Your task to perform on an android device: Open privacy settings Image 0: 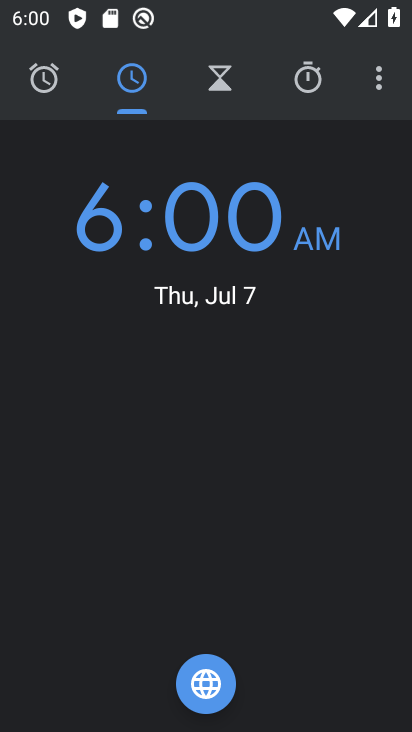
Step 0: press home button
Your task to perform on an android device: Open privacy settings Image 1: 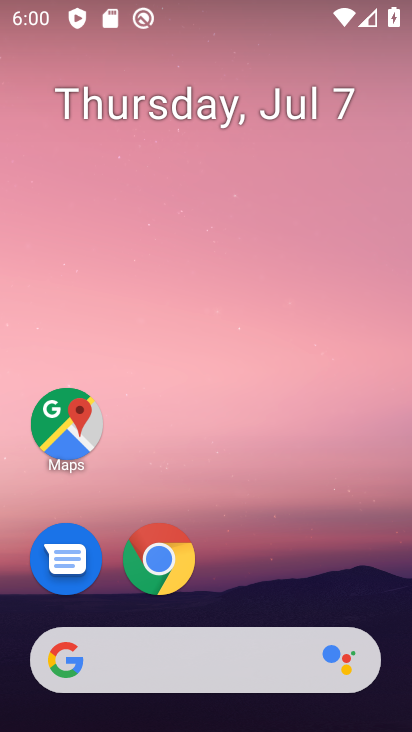
Step 1: drag from (171, 570) to (215, 210)
Your task to perform on an android device: Open privacy settings Image 2: 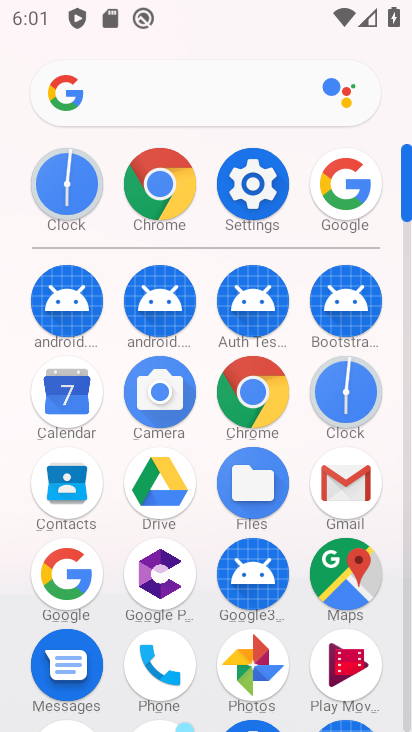
Step 2: click (255, 177)
Your task to perform on an android device: Open privacy settings Image 3: 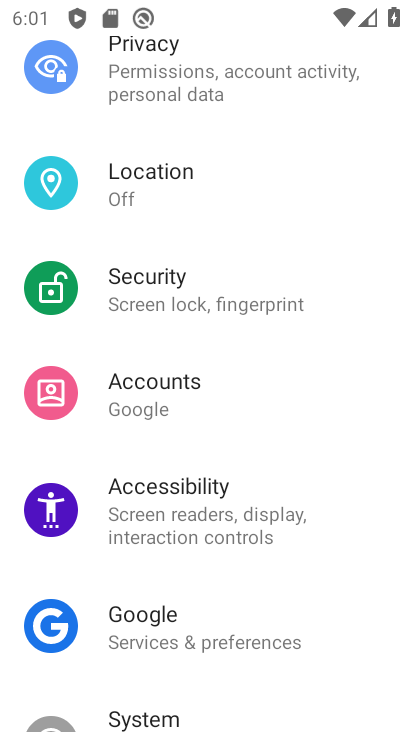
Step 3: drag from (221, 537) to (219, 370)
Your task to perform on an android device: Open privacy settings Image 4: 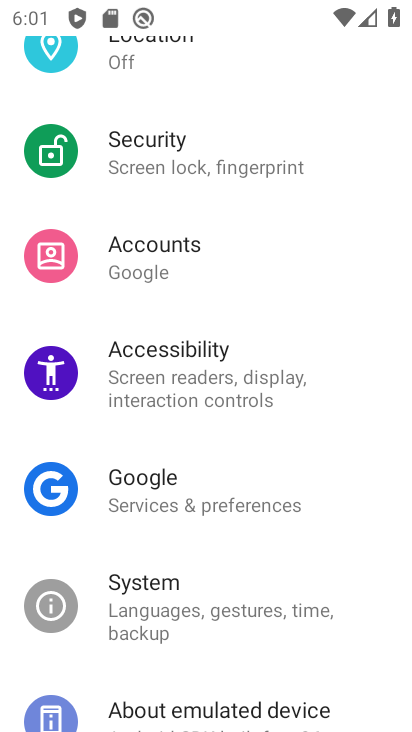
Step 4: drag from (209, 569) to (235, 126)
Your task to perform on an android device: Open privacy settings Image 5: 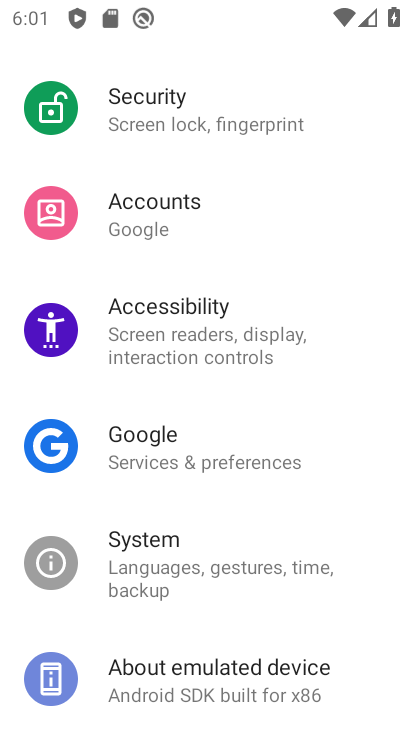
Step 5: drag from (190, 175) to (216, 672)
Your task to perform on an android device: Open privacy settings Image 6: 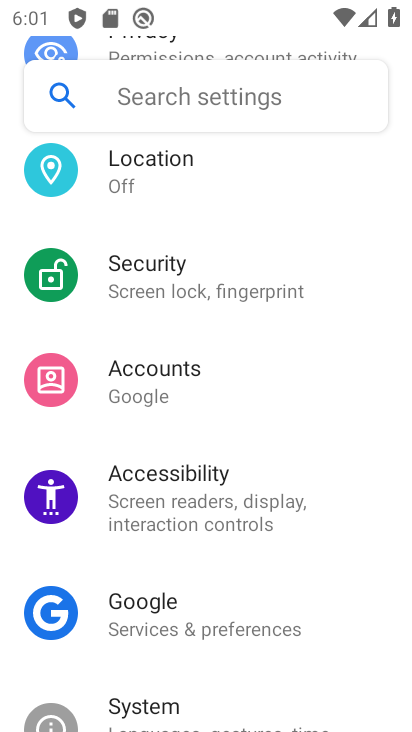
Step 6: drag from (256, 365) to (261, 473)
Your task to perform on an android device: Open privacy settings Image 7: 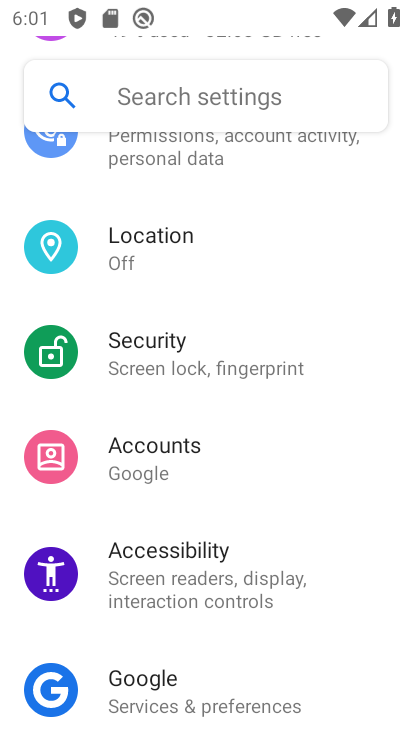
Step 7: drag from (219, 182) to (229, 528)
Your task to perform on an android device: Open privacy settings Image 8: 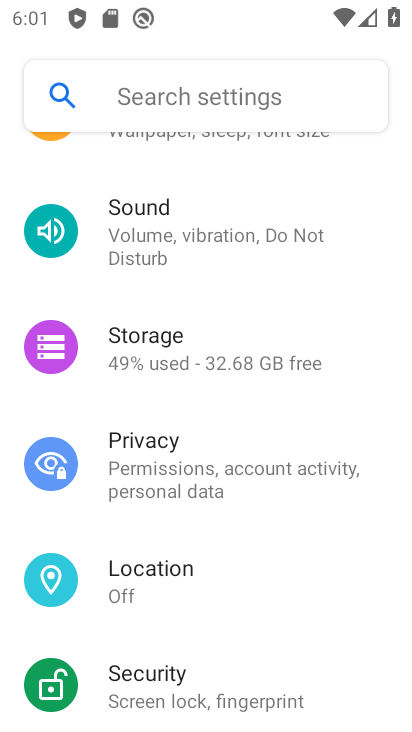
Step 8: click (191, 495)
Your task to perform on an android device: Open privacy settings Image 9: 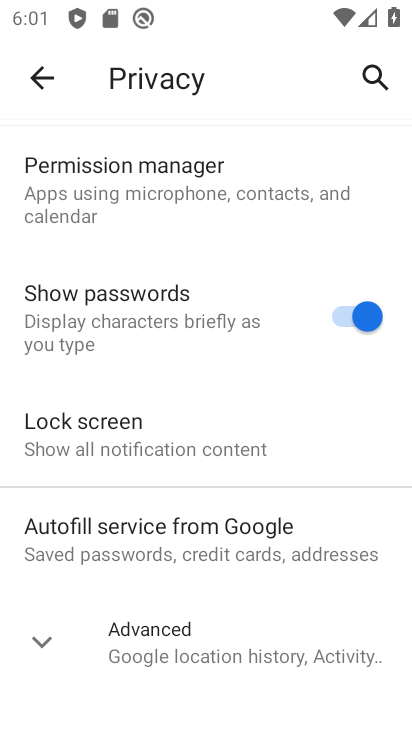
Step 9: task complete